Your task to perform on an android device: What's the US dollar exchange rateagainst the Swiss Franc? Image 0: 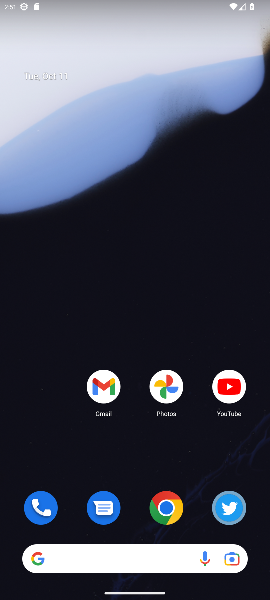
Step 0: click (166, 511)
Your task to perform on an android device: What's the US dollar exchange rateagainst the Swiss Franc? Image 1: 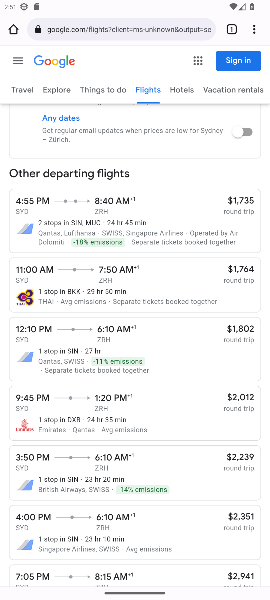
Step 1: click (85, 35)
Your task to perform on an android device: What's the US dollar exchange rateagainst the Swiss Franc? Image 2: 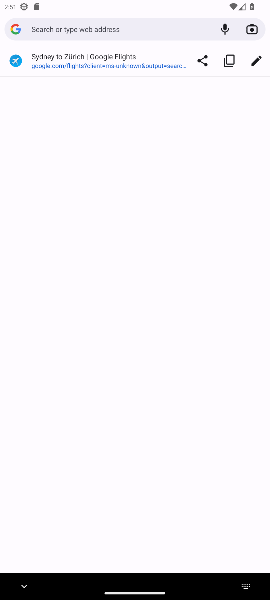
Step 2: type "US dollar exchange rateagainst the Swiss Franc"
Your task to perform on an android device: What's the US dollar exchange rateagainst the Swiss Franc? Image 3: 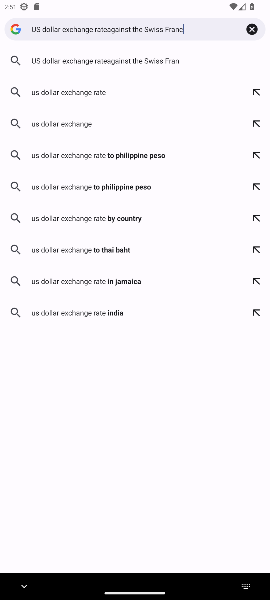
Step 3: type ""
Your task to perform on an android device: What's the US dollar exchange rateagainst the Swiss Franc? Image 4: 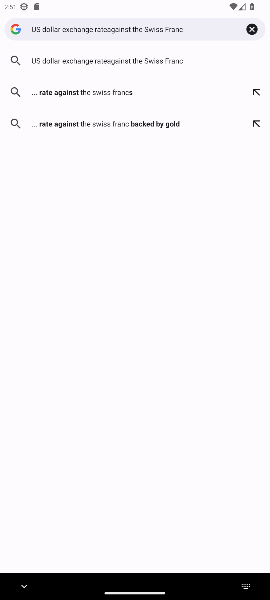
Step 4: press enter
Your task to perform on an android device: What's the US dollar exchange rateagainst the Swiss Franc? Image 5: 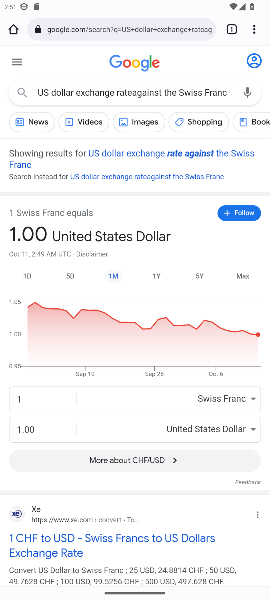
Step 5: task complete